Your task to perform on an android device: turn on showing notifications on the lock screen Image 0: 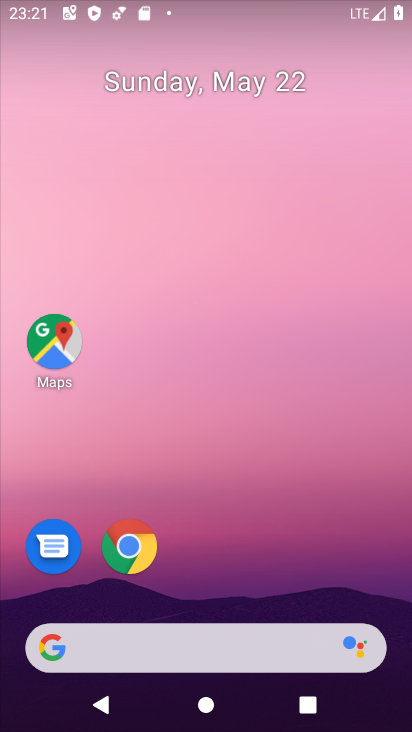
Step 0: click (285, 128)
Your task to perform on an android device: turn on showing notifications on the lock screen Image 1: 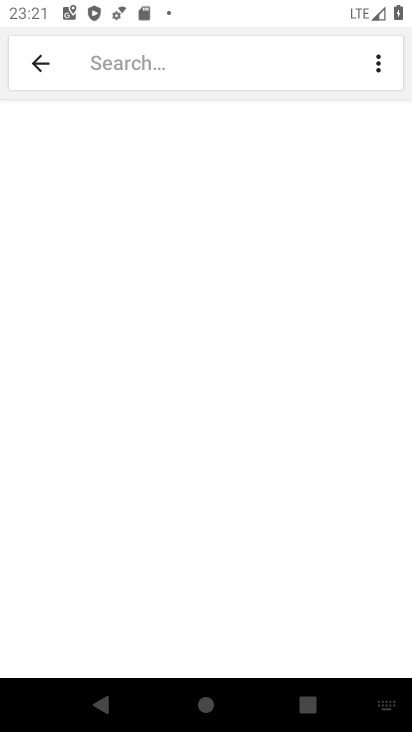
Step 1: drag from (240, 613) to (325, 176)
Your task to perform on an android device: turn on showing notifications on the lock screen Image 2: 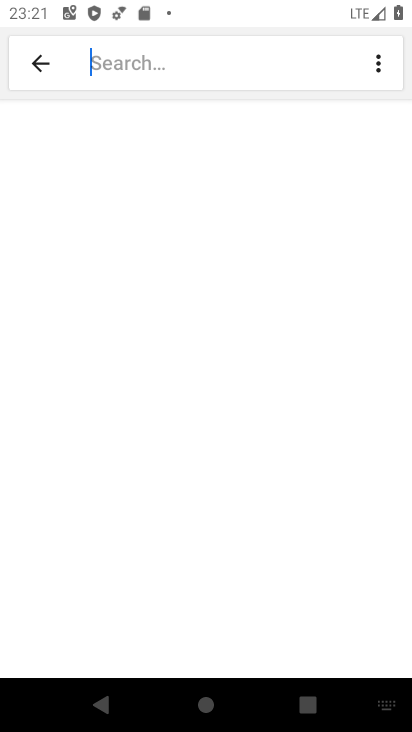
Step 2: press back button
Your task to perform on an android device: turn on showing notifications on the lock screen Image 3: 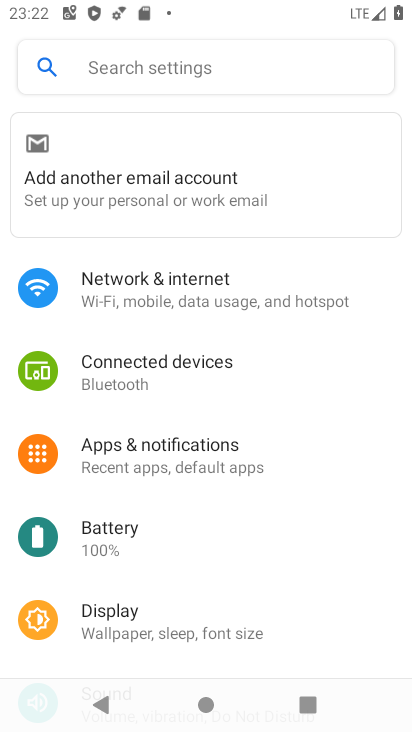
Step 3: drag from (289, 564) to (311, 130)
Your task to perform on an android device: turn on showing notifications on the lock screen Image 4: 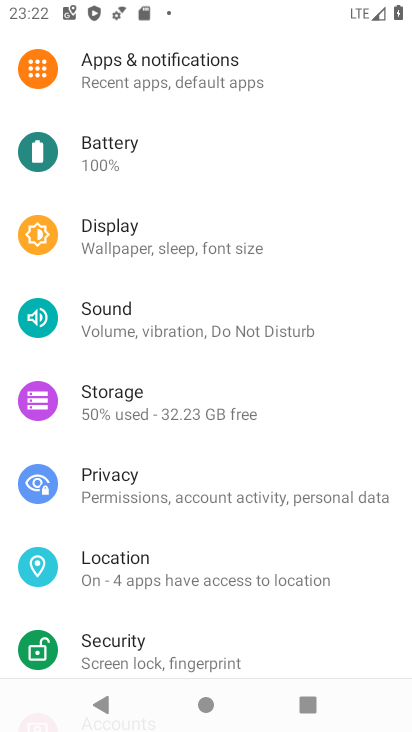
Step 4: drag from (143, 561) to (284, 138)
Your task to perform on an android device: turn on showing notifications on the lock screen Image 5: 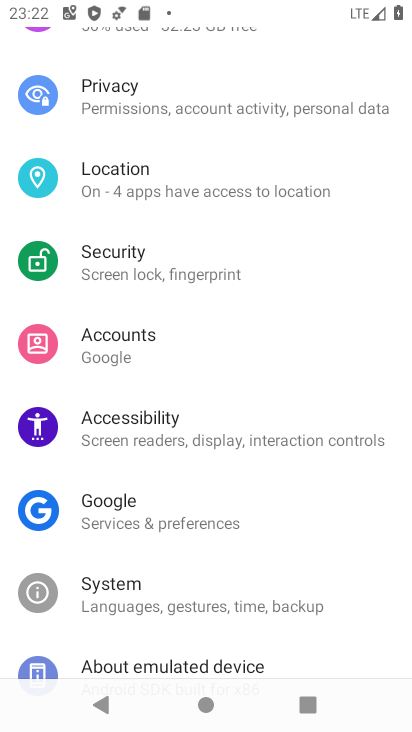
Step 5: drag from (149, 453) to (254, 153)
Your task to perform on an android device: turn on showing notifications on the lock screen Image 6: 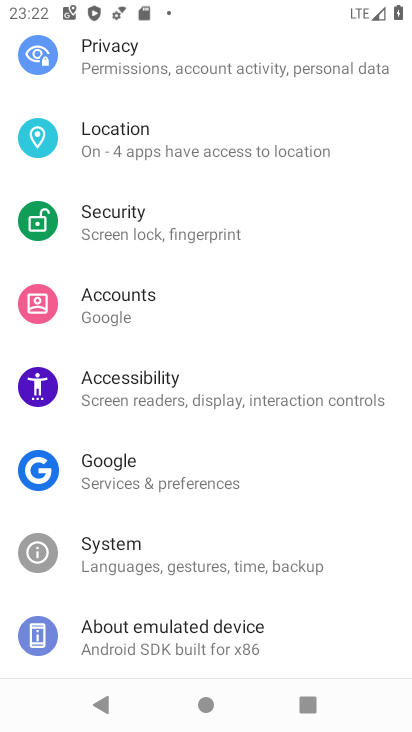
Step 6: drag from (228, 565) to (275, 252)
Your task to perform on an android device: turn on showing notifications on the lock screen Image 7: 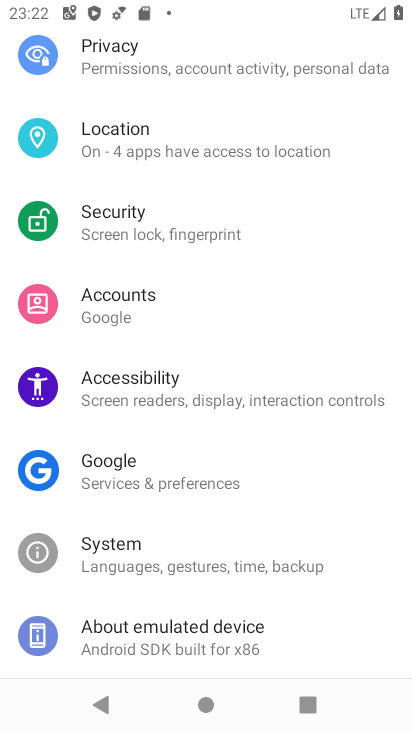
Step 7: drag from (192, 564) to (291, 343)
Your task to perform on an android device: turn on showing notifications on the lock screen Image 8: 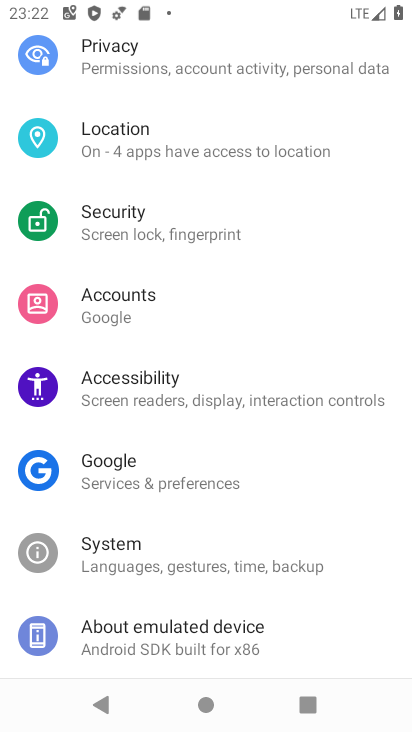
Step 8: drag from (151, 546) to (233, 261)
Your task to perform on an android device: turn on showing notifications on the lock screen Image 9: 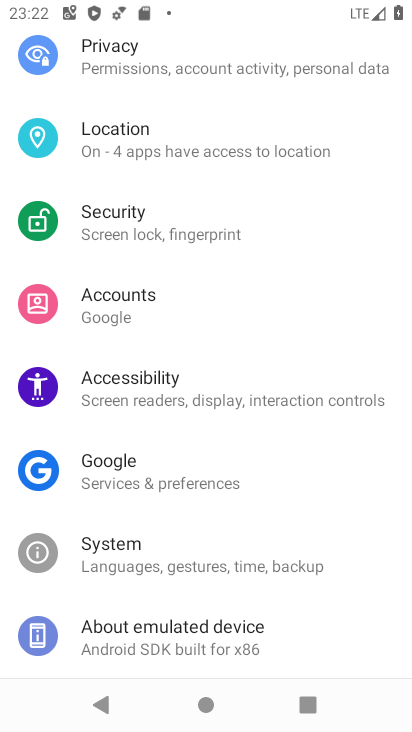
Step 9: drag from (216, 139) to (228, 722)
Your task to perform on an android device: turn on showing notifications on the lock screen Image 10: 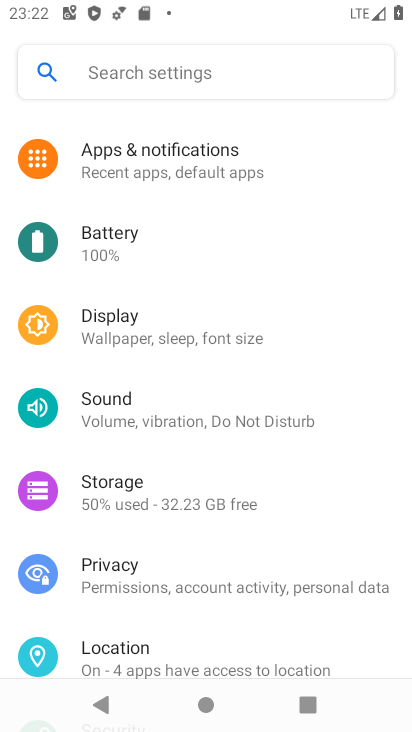
Step 10: drag from (200, 211) to (188, 708)
Your task to perform on an android device: turn on showing notifications on the lock screen Image 11: 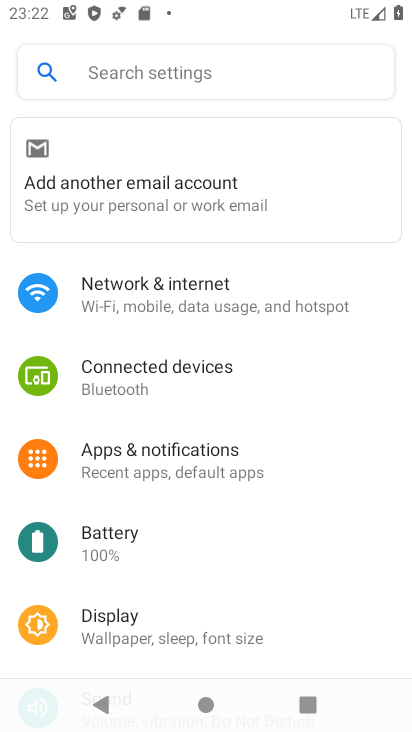
Step 11: click (172, 276)
Your task to perform on an android device: turn on showing notifications on the lock screen Image 12: 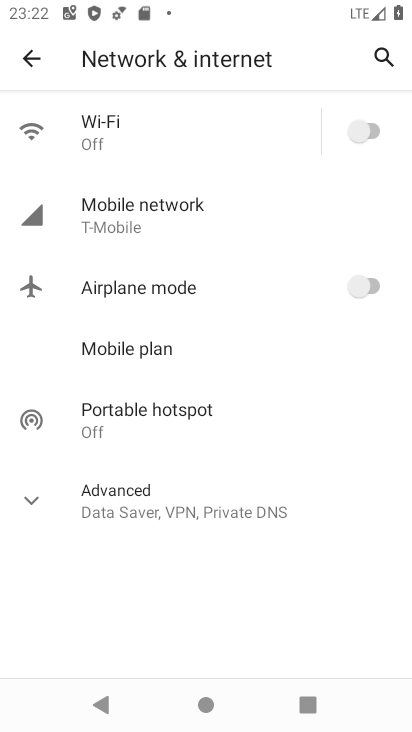
Step 12: click (41, 53)
Your task to perform on an android device: turn on showing notifications on the lock screen Image 13: 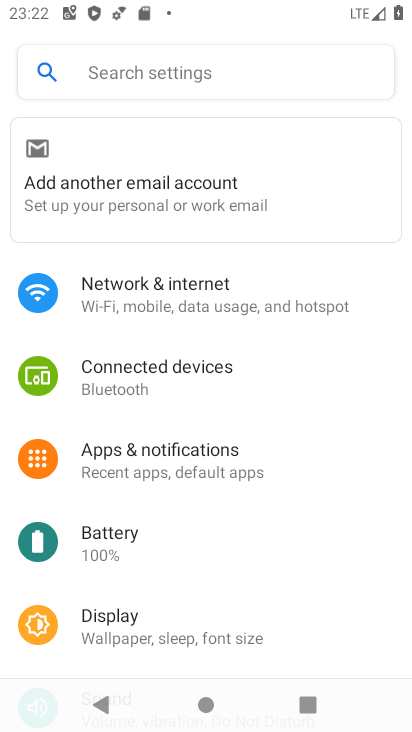
Step 13: click (163, 469)
Your task to perform on an android device: turn on showing notifications on the lock screen Image 14: 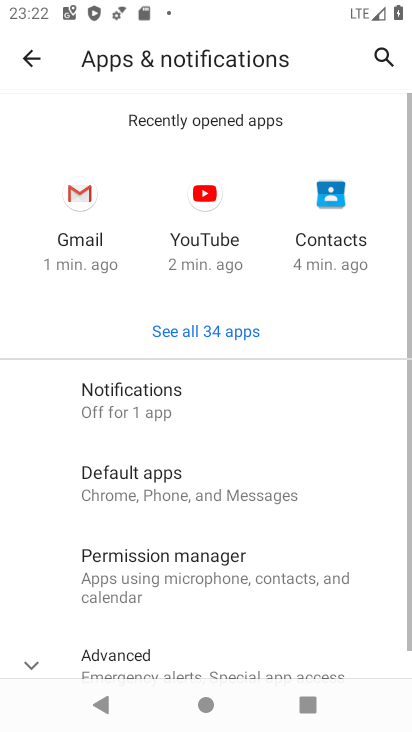
Step 14: drag from (217, 520) to (286, 198)
Your task to perform on an android device: turn on showing notifications on the lock screen Image 15: 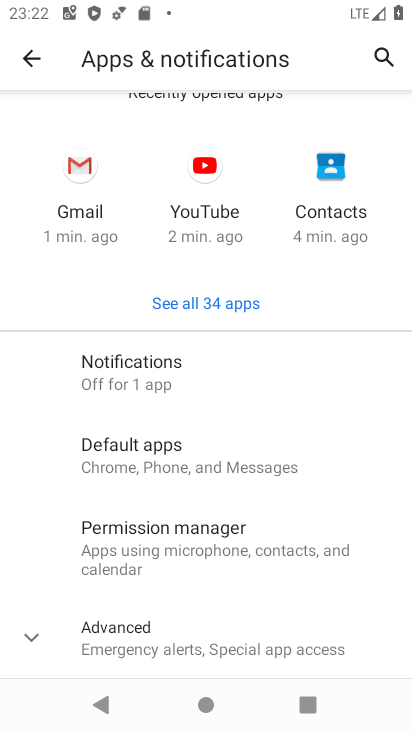
Step 15: click (145, 376)
Your task to perform on an android device: turn on showing notifications on the lock screen Image 16: 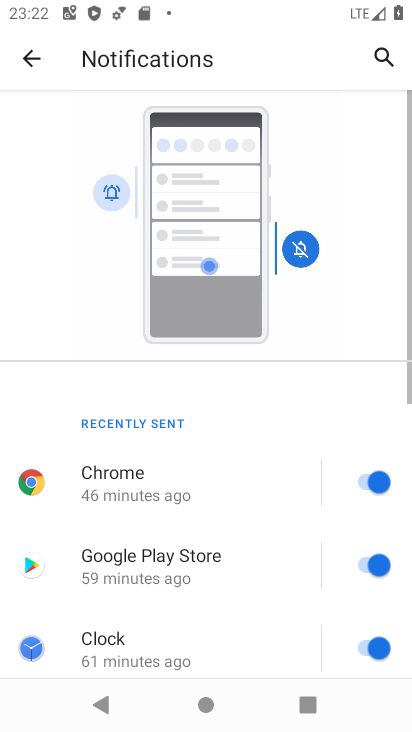
Step 16: drag from (186, 600) to (317, 116)
Your task to perform on an android device: turn on showing notifications on the lock screen Image 17: 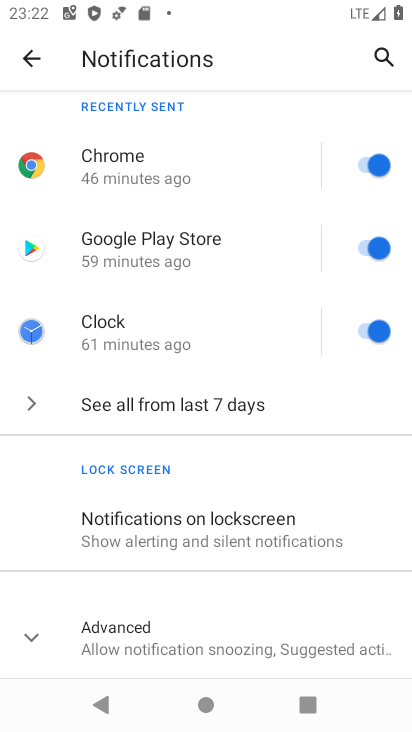
Step 17: click (173, 531)
Your task to perform on an android device: turn on showing notifications on the lock screen Image 18: 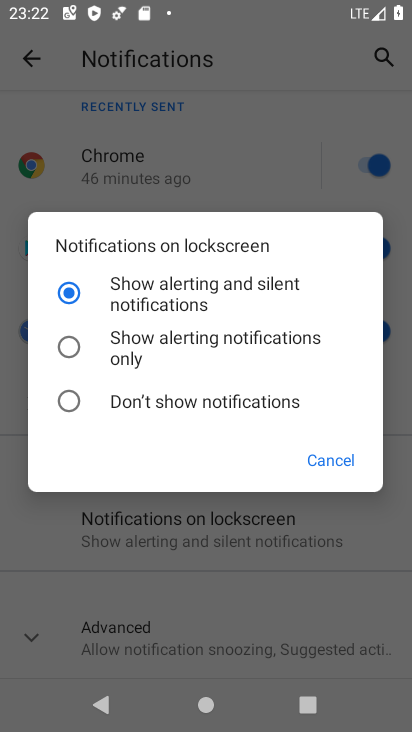
Step 18: click (133, 355)
Your task to perform on an android device: turn on showing notifications on the lock screen Image 19: 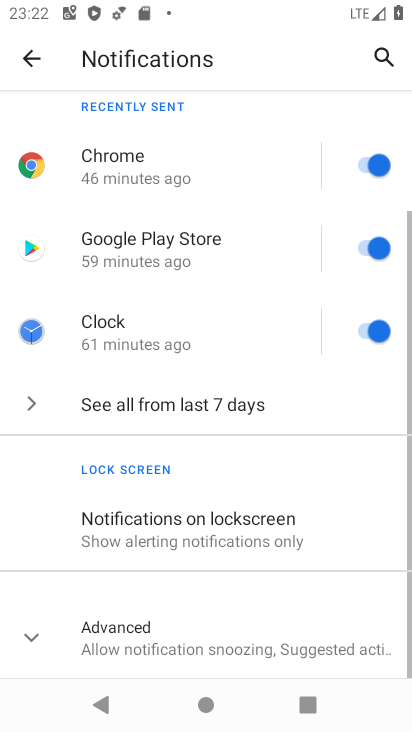
Step 19: task complete